Your task to perform on an android device: Search for vegetarian restaurants on Maps Image 0: 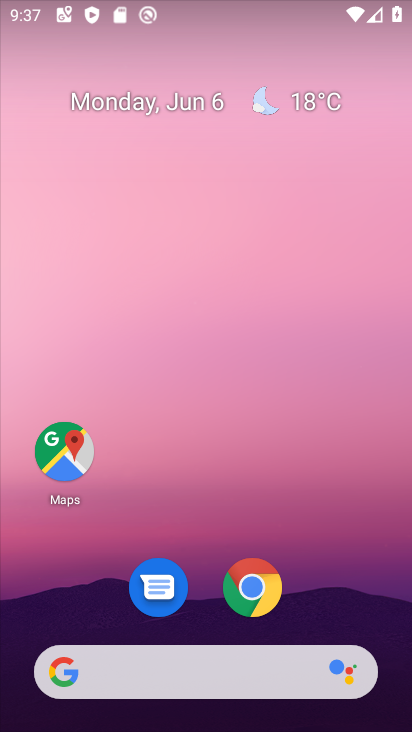
Step 0: click (46, 457)
Your task to perform on an android device: Search for vegetarian restaurants on Maps Image 1: 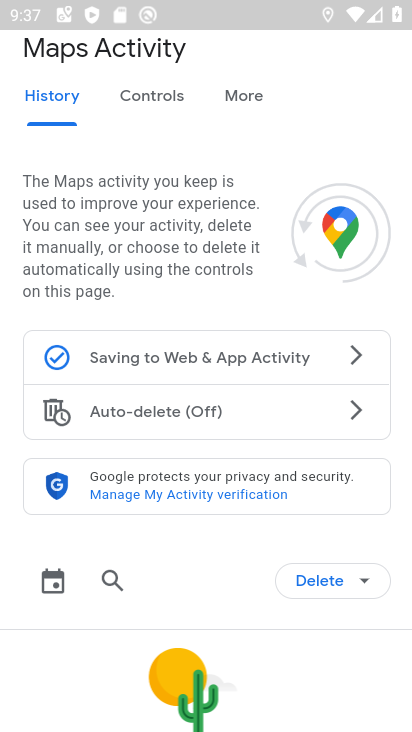
Step 1: press back button
Your task to perform on an android device: Search for vegetarian restaurants on Maps Image 2: 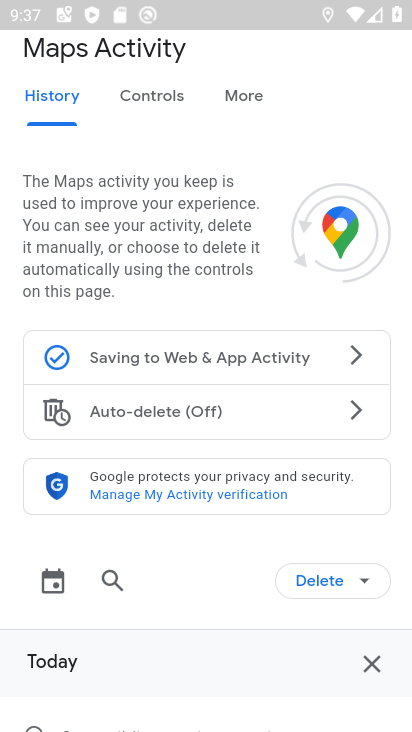
Step 2: press back button
Your task to perform on an android device: Search for vegetarian restaurants on Maps Image 3: 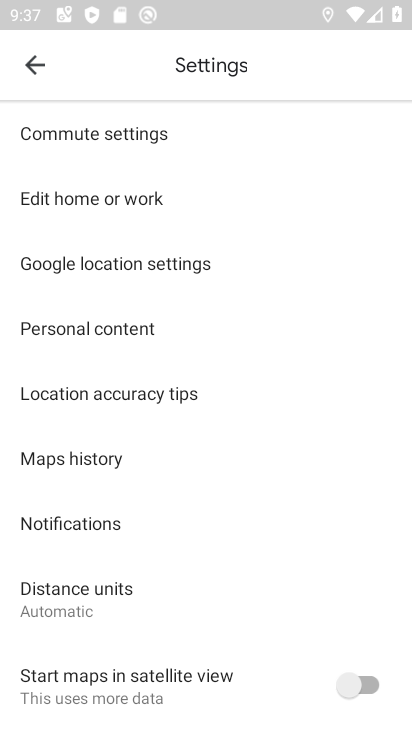
Step 3: press back button
Your task to perform on an android device: Search for vegetarian restaurants on Maps Image 4: 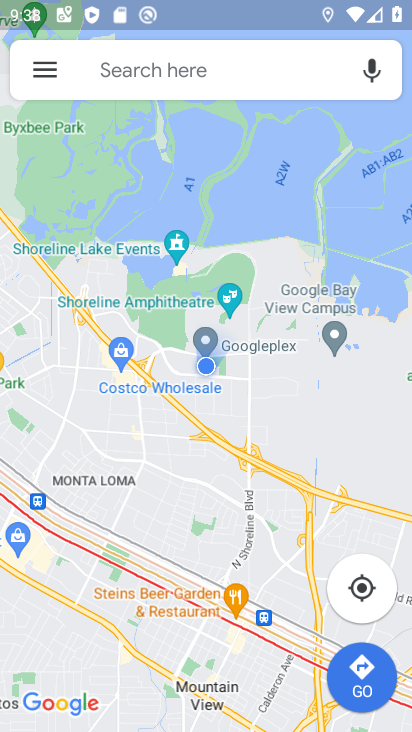
Step 4: click (235, 88)
Your task to perform on an android device: Search for vegetarian restaurants on Maps Image 5: 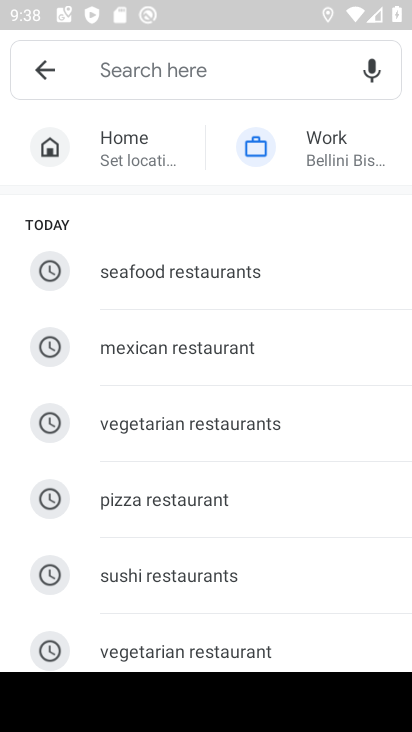
Step 5: click (246, 417)
Your task to perform on an android device: Search for vegetarian restaurants on Maps Image 6: 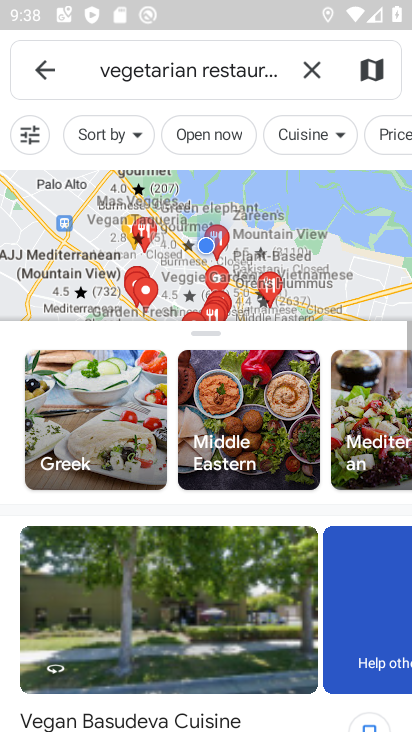
Step 6: task complete